Your task to perform on an android device: set the timer Image 0: 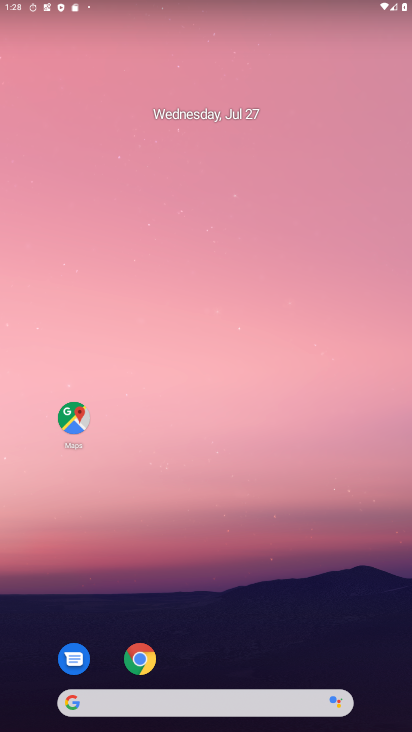
Step 0: press home button
Your task to perform on an android device: set the timer Image 1: 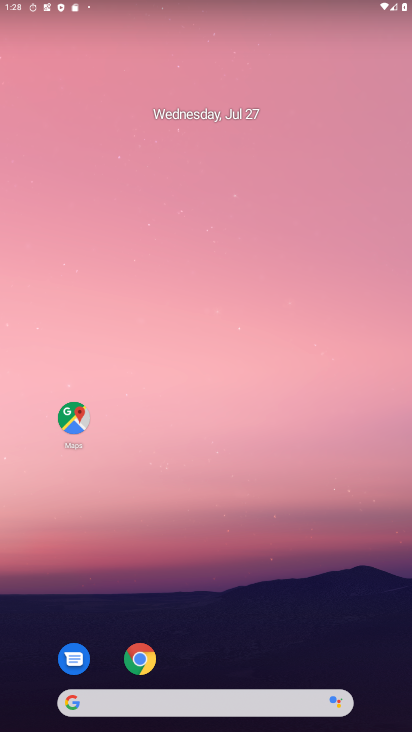
Step 1: drag from (218, 649) to (211, 70)
Your task to perform on an android device: set the timer Image 2: 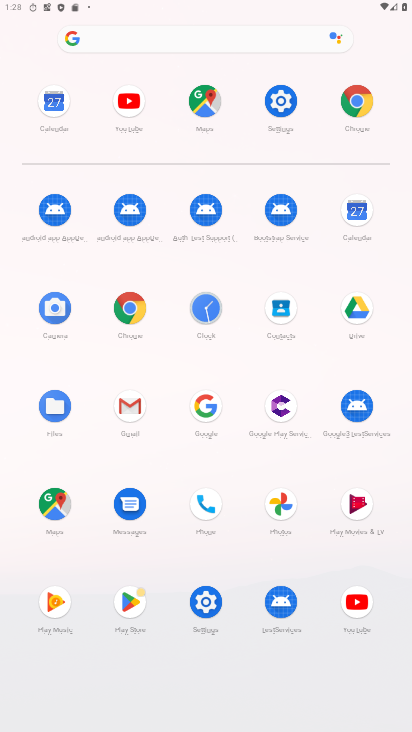
Step 2: click (196, 306)
Your task to perform on an android device: set the timer Image 3: 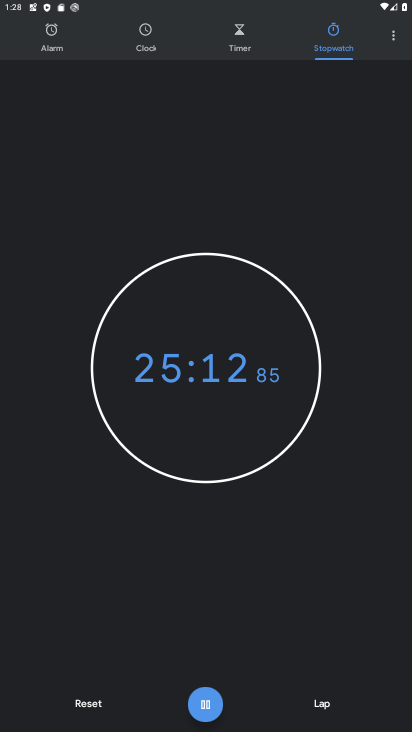
Step 3: click (83, 695)
Your task to perform on an android device: set the timer Image 4: 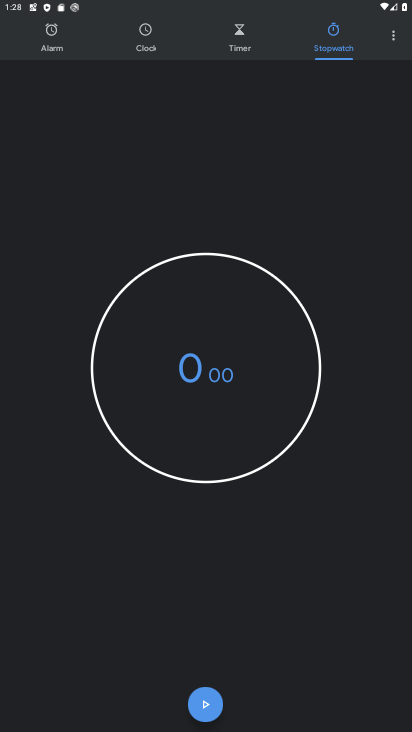
Step 4: click (237, 40)
Your task to perform on an android device: set the timer Image 5: 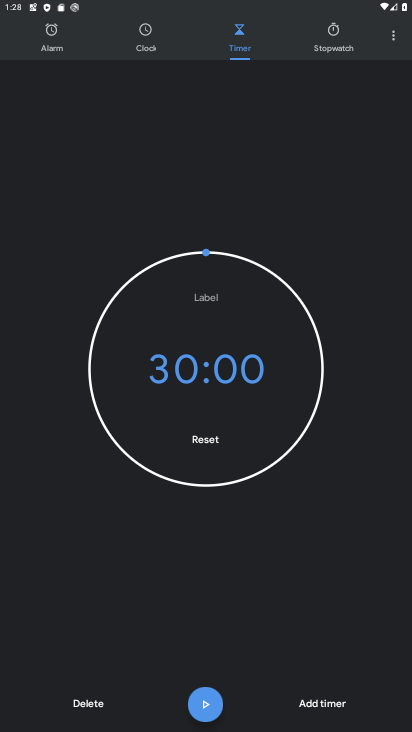
Step 5: click (203, 703)
Your task to perform on an android device: set the timer Image 6: 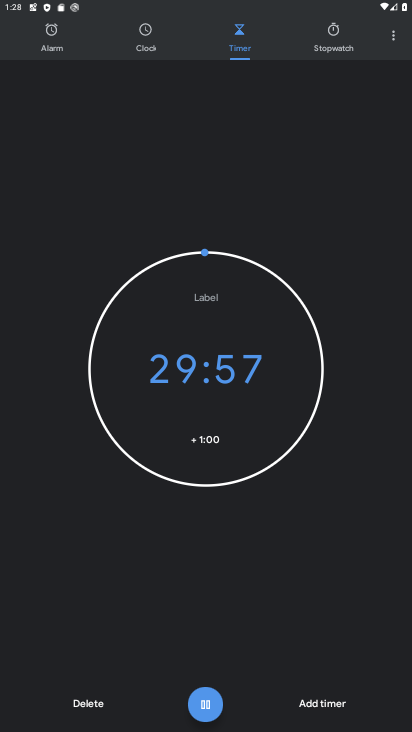
Step 6: task complete